Your task to perform on an android device: turn on priority inbox in the gmail app Image 0: 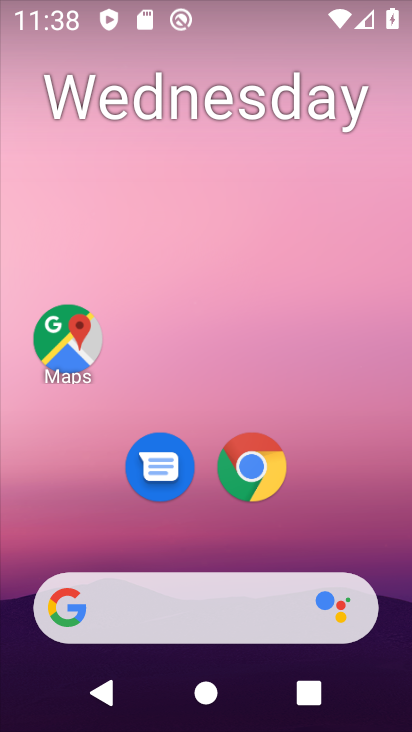
Step 0: drag from (186, 618) to (316, 130)
Your task to perform on an android device: turn on priority inbox in the gmail app Image 1: 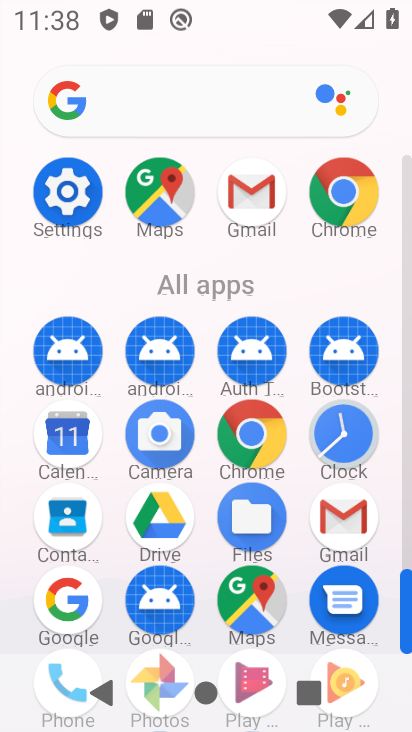
Step 1: click (254, 202)
Your task to perform on an android device: turn on priority inbox in the gmail app Image 2: 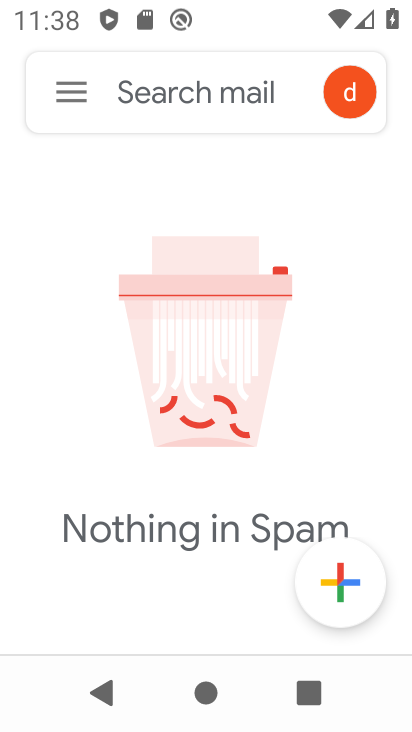
Step 2: click (65, 82)
Your task to perform on an android device: turn on priority inbox in the gmail app Image 3: 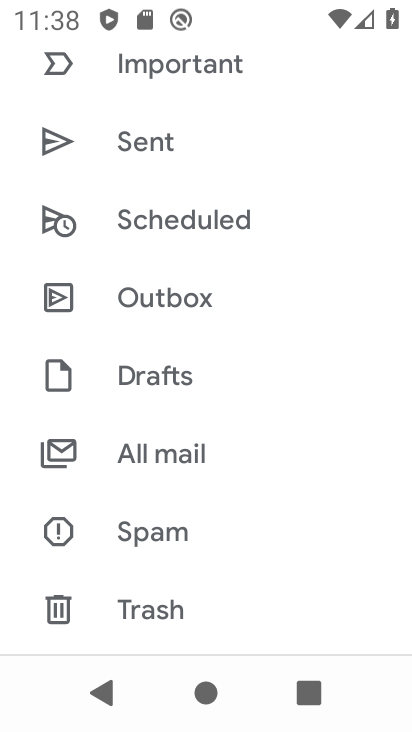
Step 3: drag from (231, 579) to (303, 142)
Your task to perform on an android device: turn on priority inbox in the gmail app Image 4: 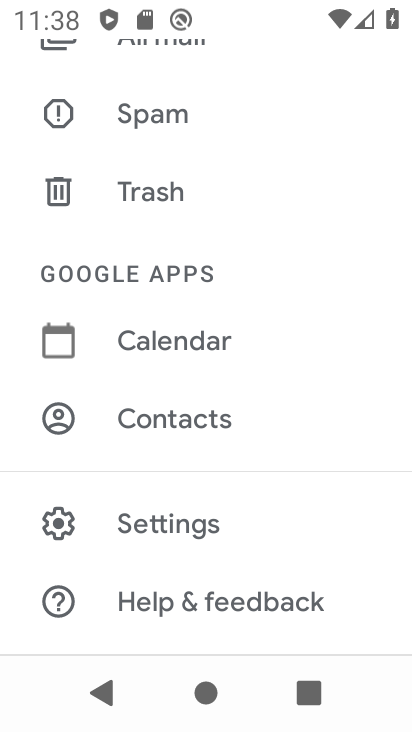
Step 4: click (196, 519)
Your task to perform on an android device: turn on priority inbox in the gmail app Image 5: 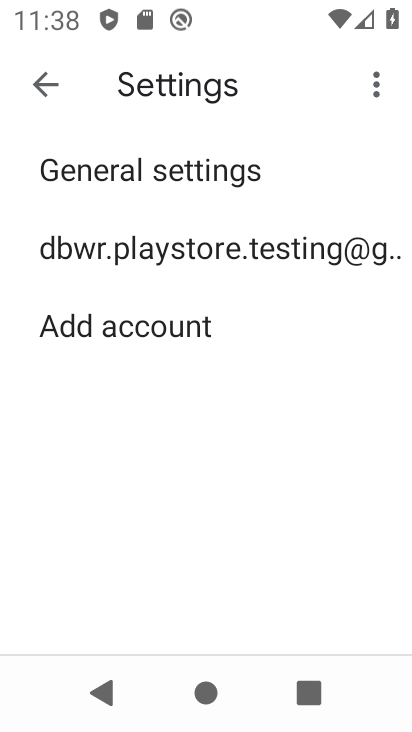
Step 5: click (202, 254)
Your task to perform on an android device: turn on priority inbox in the gmail app Image 6: 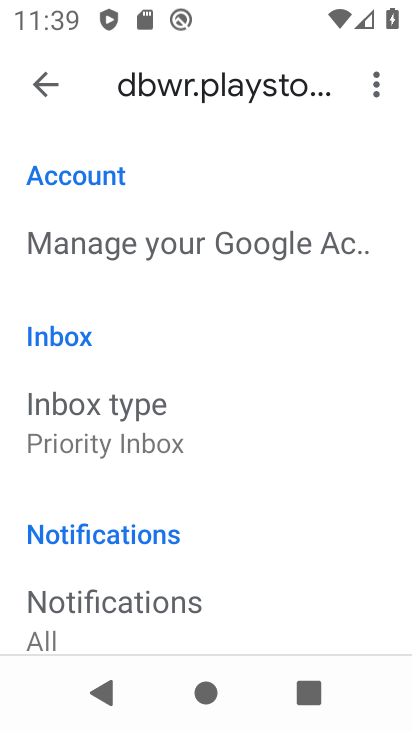
Step 6: click (166, 439)
Your task to perform on an android device: turn on priority inbox in the gmail app Image 7: 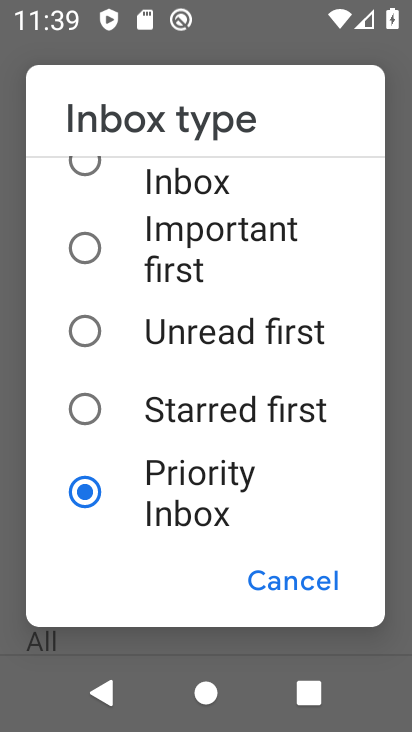
Step 7: task complete